Your task to perform on an android device: check google app version Image 0: 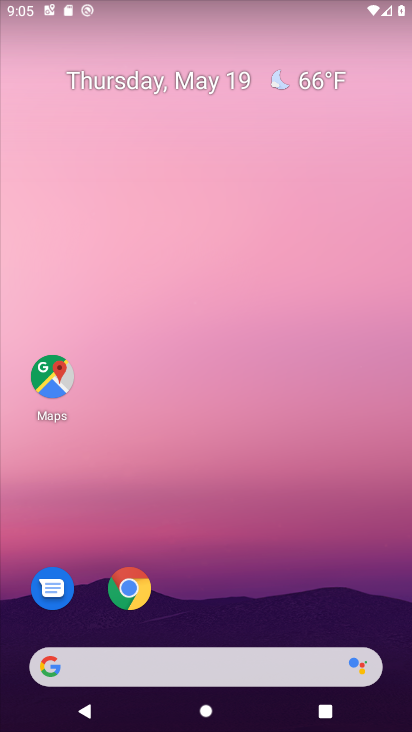
Step 0: drag from (366, 615) to (359, 302)
Your task to perform on an android device: check google app version Image 1: 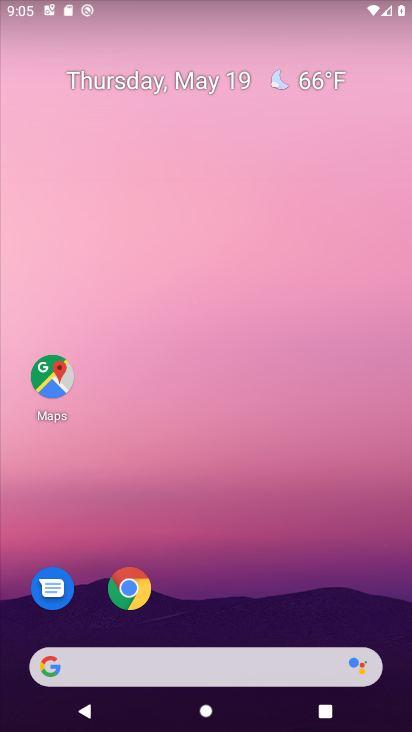
Step 1: drag from (368, 605) to (383, 345)
Your task to perform on an android device: check google app version Image 2: 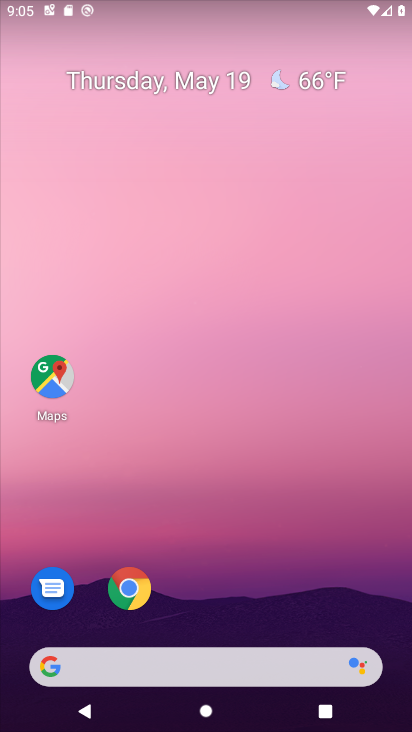
Step 2: drag from (382, 537) to (397, 139)
Your task to perform on an android device: check google app version Image 3: 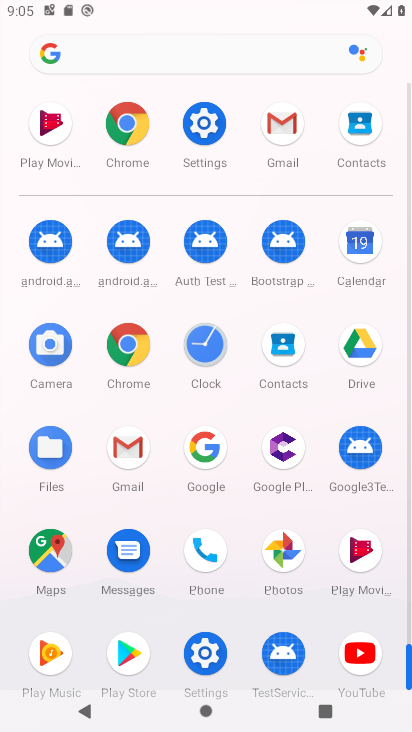
Step 3: click (210, 457)
Your task to perform on an android device: check google app version Image 4: 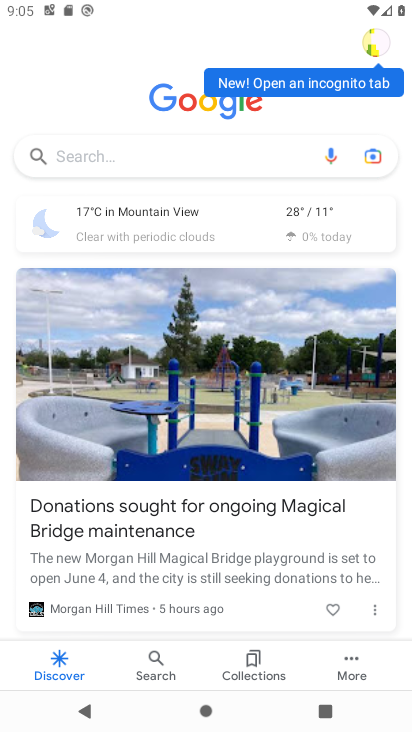
Step 4: click (354, 668)
Your task to perform on an android device: check google app version Image 5: 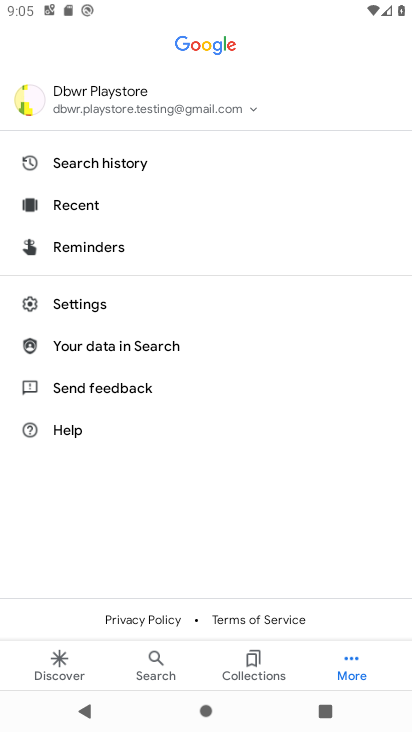
Step 5: click (121, 311)
Your task to perform on an android device: check google app version Image 6: 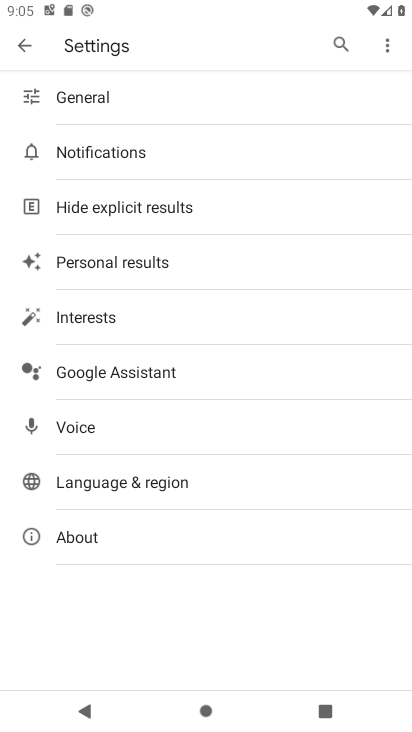
Step 6: click (307, 546)
Your task to perform on an android device: check google app version Image 7: 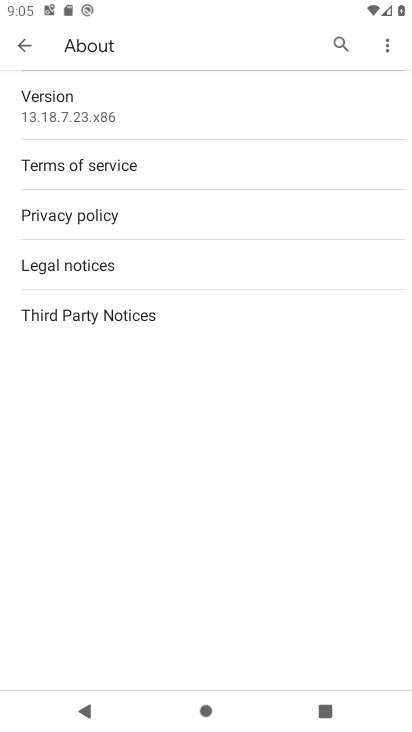
Step 7: task complete